Your task to perform on an android device: Open the map Image 0: 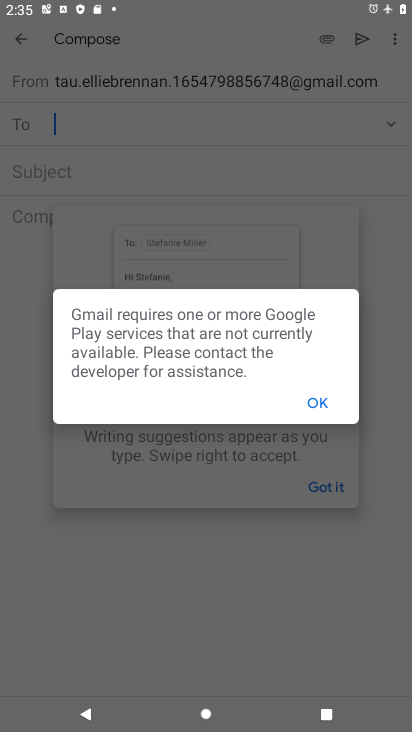
Step 0: press home button
Your task to perform on an android device: Open the map Image 1: 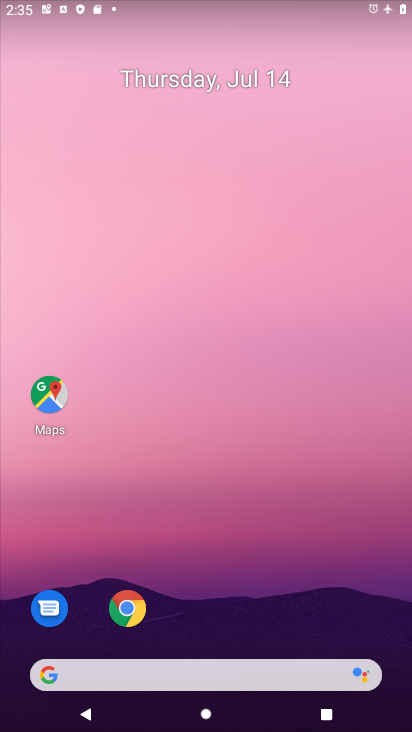
Step 1: click (46, 395)
Your task to perform on an android device: Open the map Image 2: 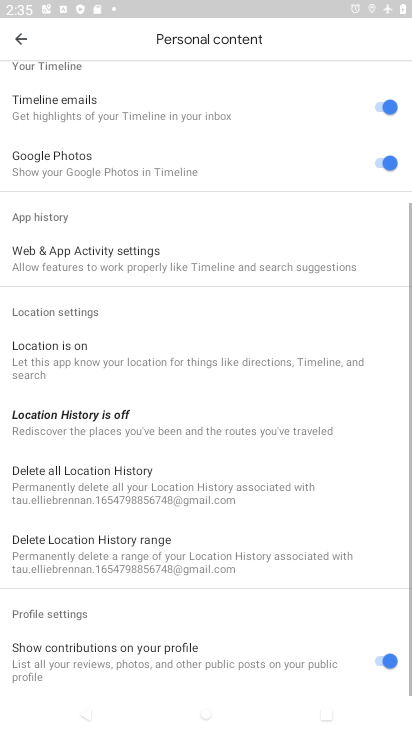
Step 2: task complete